Your task to perform on an android device: Go to CNN.com Image 0: 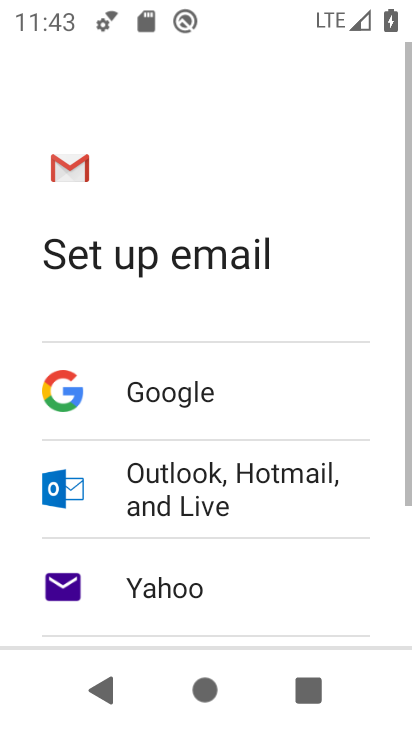
Step 0: press back button
Your task to perform on an android device: Go to CNN.com Image 1: 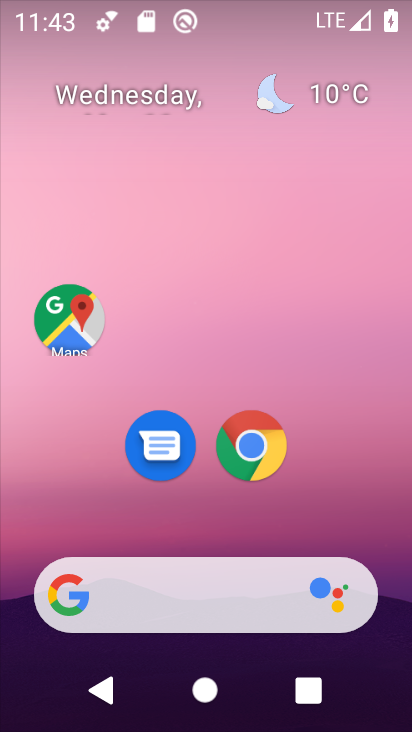
Step 1: click (249, 446)
Your task to perform on an android device: Go to CNN.com Image 2: 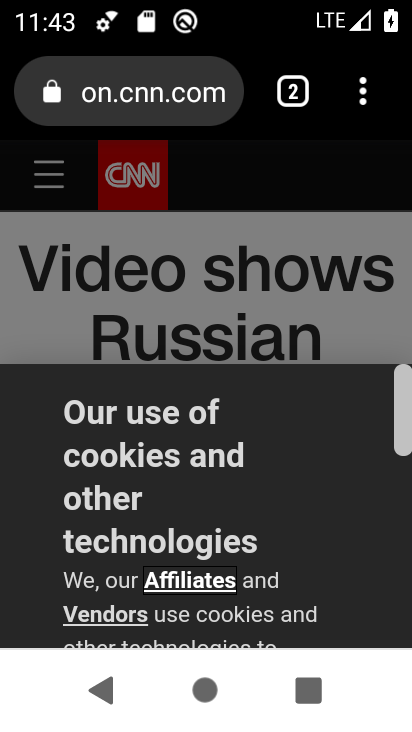
Step 2: click (303, 89)
Your task to perform on an android device: Go to CNN.com Image 3: 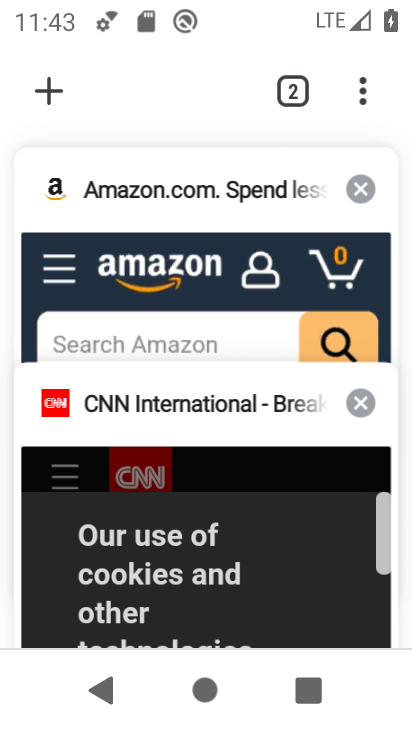
Step 3: task complete